Your task to perform on an android device: toggle data saver in the chrome app Image 0: 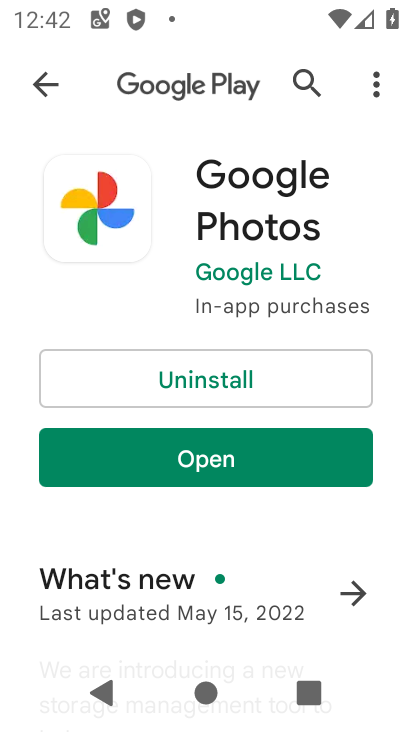
Step 0: click (44, 95)
Your task to perform on an android device: toggle data saver in the chrome app Image 1: 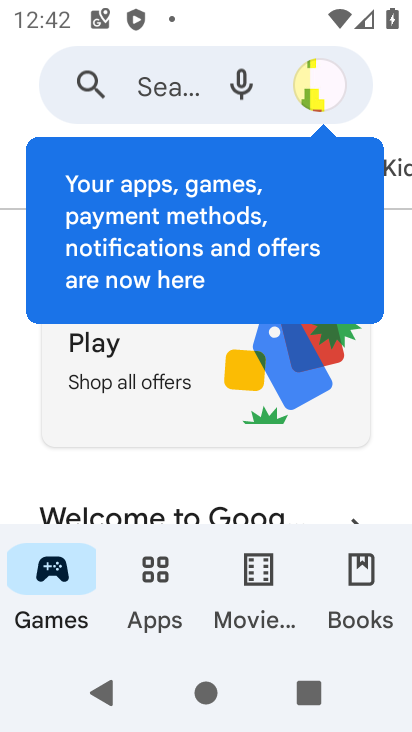
Step 1: press home button
Your task to perform on an android device: toggle data saver in the chrome app Image 2: 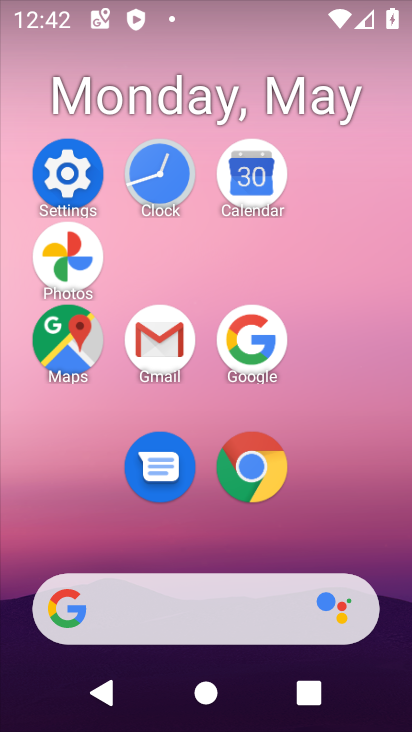
Step 2: click (260, 474)
Your task to perform on an android device: toggle data saver in the chrome app Image 3: 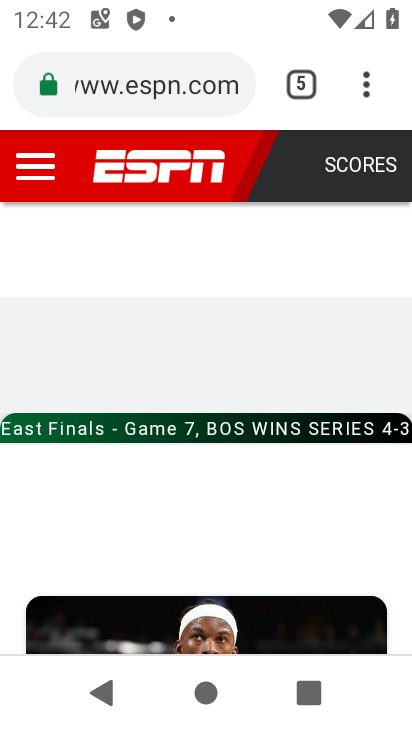
Step 3: click (372, 70)
Your task to perform on an android device: toggle data saver in the chrome app Image 4: 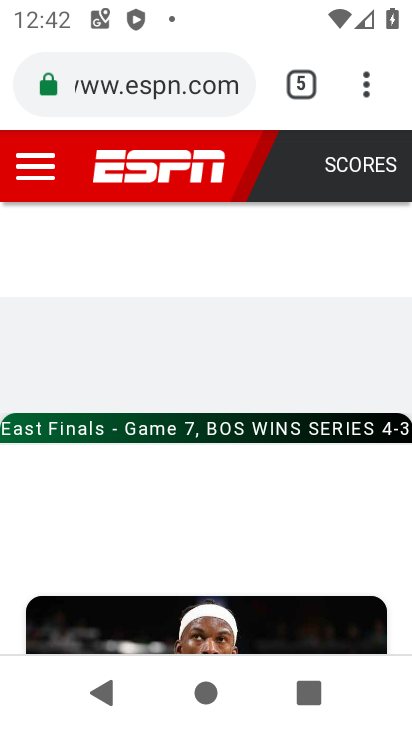
Step 4: click (375, 70)
Your task to perform on an android device: toggle data saver in the chrome app Image 5: 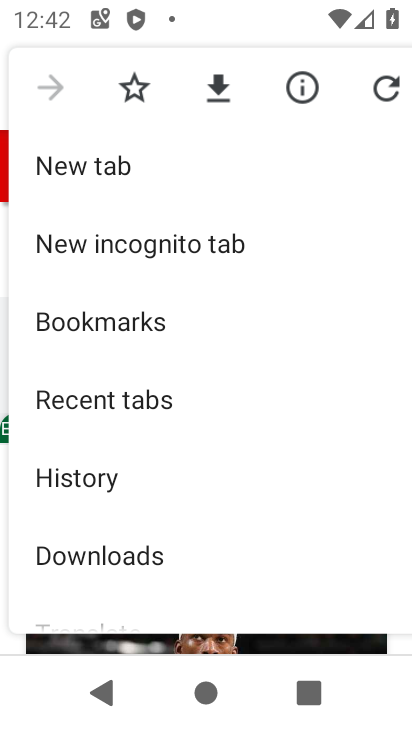
Step 5: click (204, 173)
Your task to perform on an android device: toggle data saver in the chrome app Image 6: 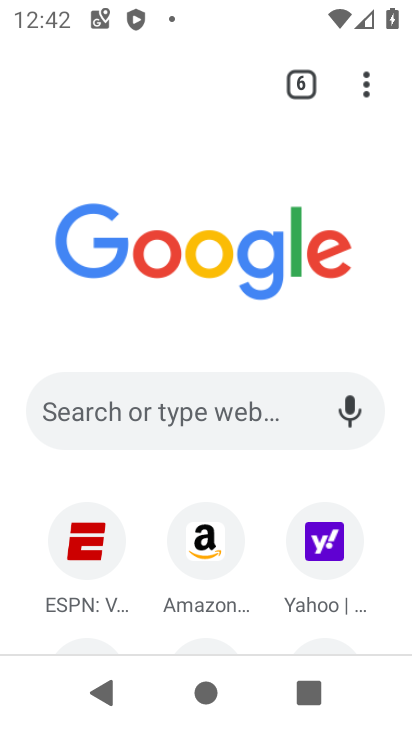
Step 6: click (370, 86)
Your task to perform on an android device: toggle data saver in the chrome app Image 7: 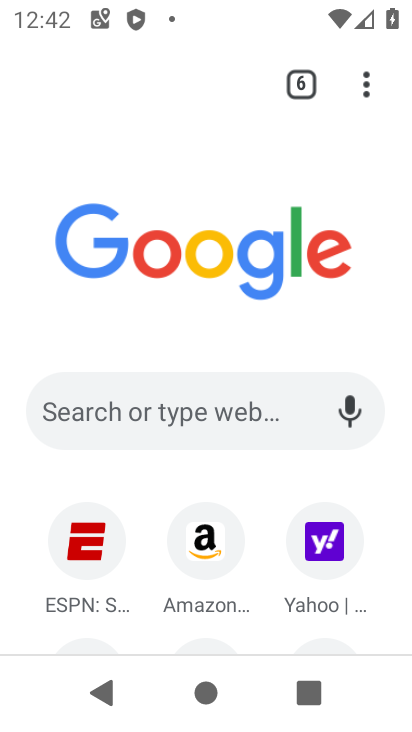
Step 7: click (363, 91)
Your task to perform on an android device: toggle data saver in the chrome app Image 8: 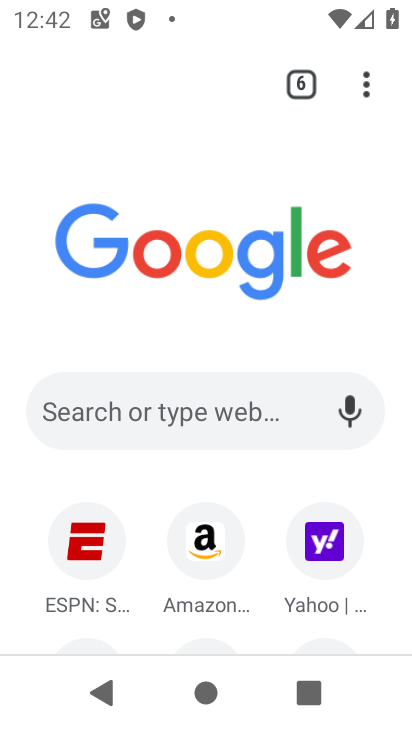
Step 8: click (384, 93)
Your task to perform on an android device: toggle data saver in the chrome app Image 9: 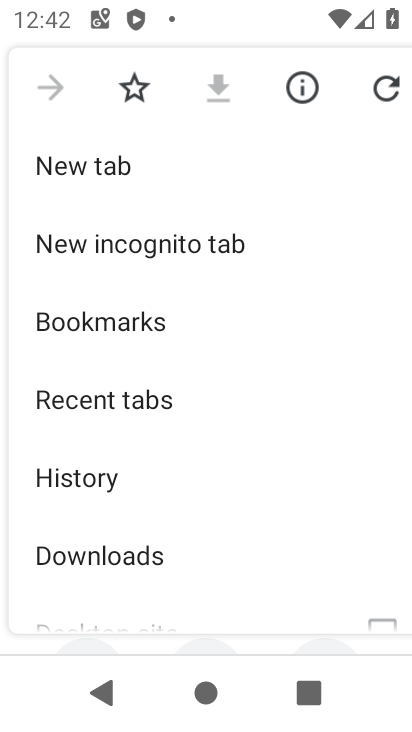
Step 9: drag from (199, 445) to (231, 146)
Your task to perform on an android device: toggle data saver in the chrome app Image 10: 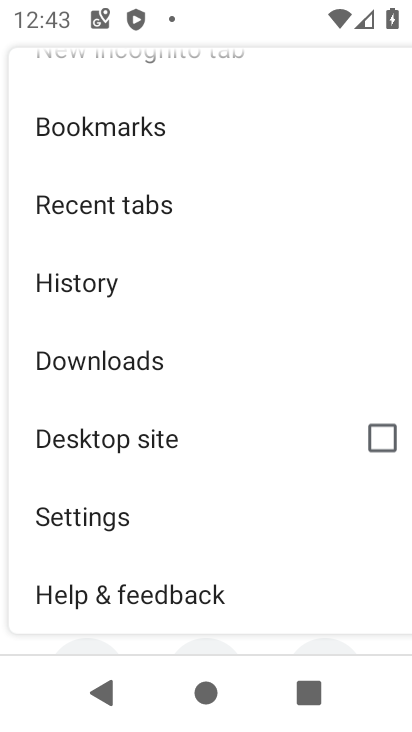
Step 10: click (159, 521)
Your task to perform on an android device: toggle data saver in the chrome app Image 11: 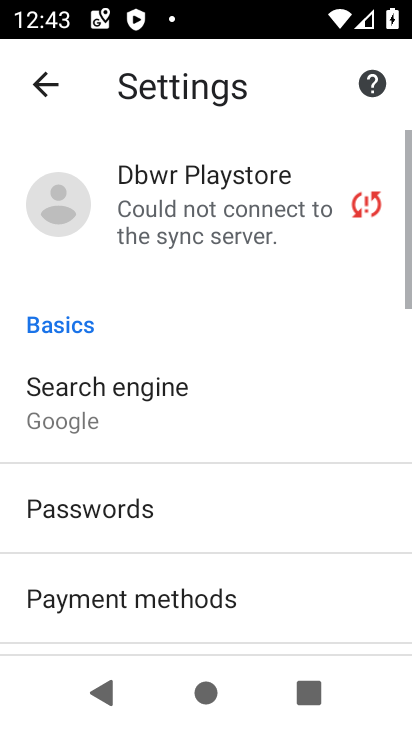
Step 11: drag from (166, 466) to (175, 171)
Your task to perform on an android device: toggle data saver in the chrome app Image 12: 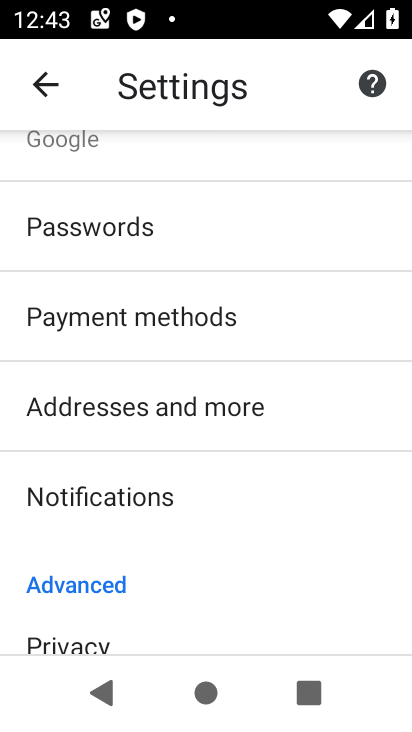
Step 12: drag from (194, 569) to (202, 225)
Your task to perform on an android device: toggle data saver in the chrome app Image 13: 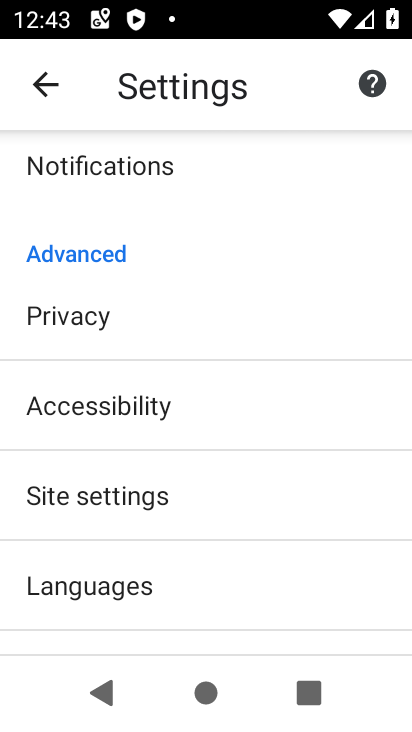
Step 13: drag from (220, 224) to (212, 186)
Your task to perform on an android device: toggle data saver in the chrome app Image 14: 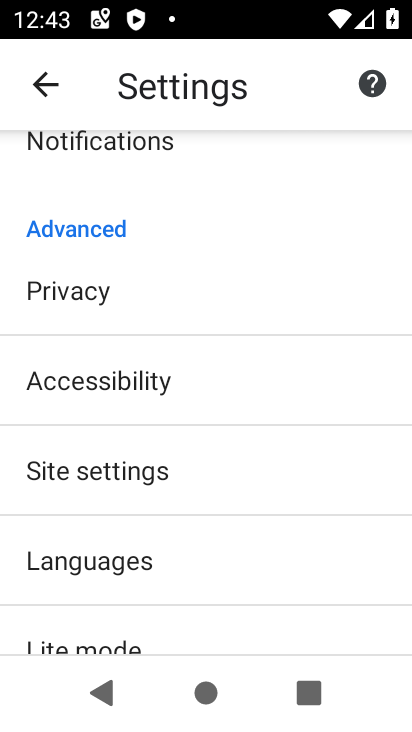
Step 14: click (163, 631)
Your task to perform on an android device: toggle data saver in the chrome app Image 15: 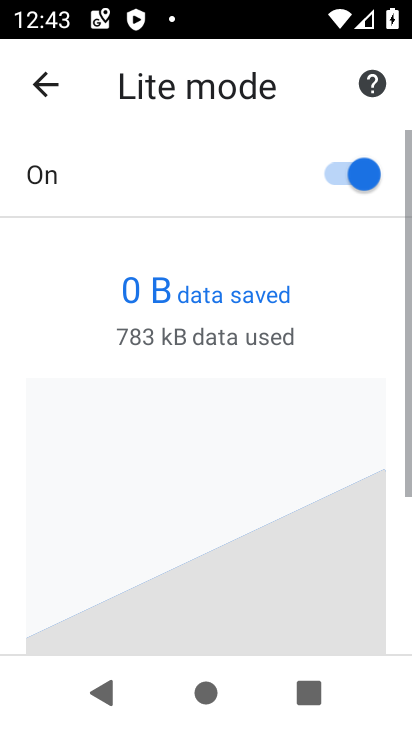
Step 15: click (368, 170)
Your task to perform on an android device: toggle data saver in the chrome app Image 16: 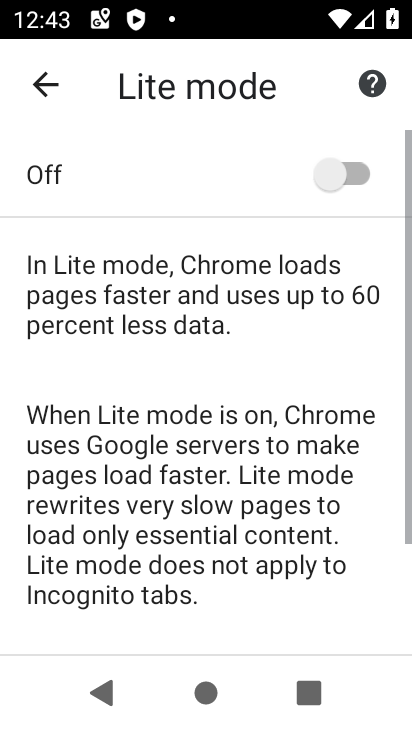
Step 16: task complete